Your task to perform on an android device: check out phone information Image 0: 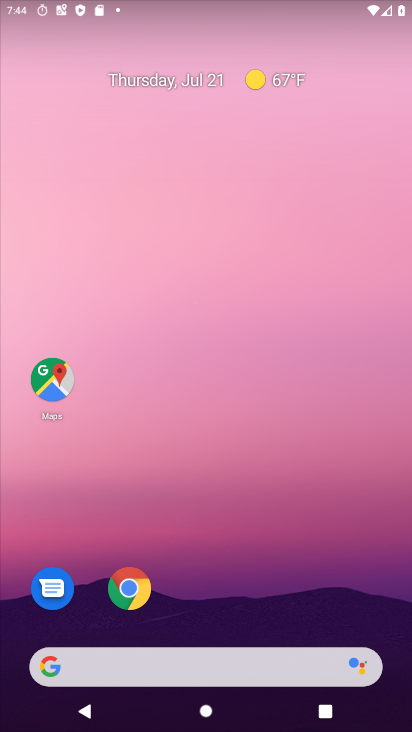
Step 0: drag from (257, 629) to (265, 101)
Your task to perform on an android device: check out phone information Image 1: 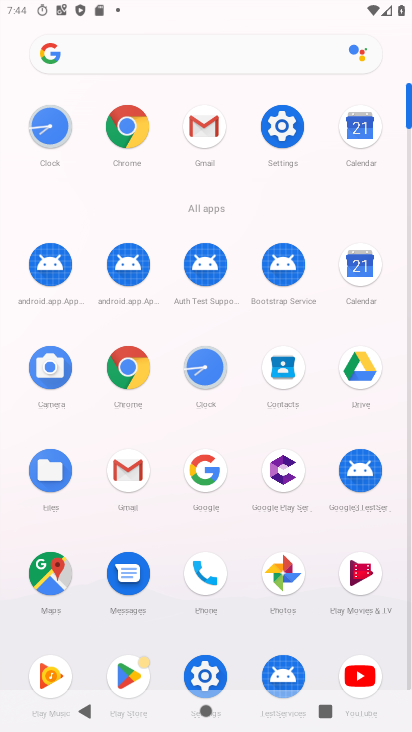
Step 1: click (191, 591)
Your task to perform on an android device: check out phone information Image 2: 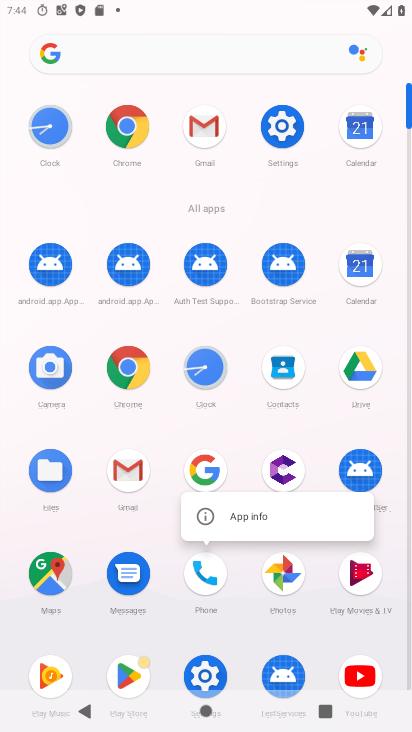
Step 2: click (223, 513)
Your task to perform on an android device: check out phone information Image 3: 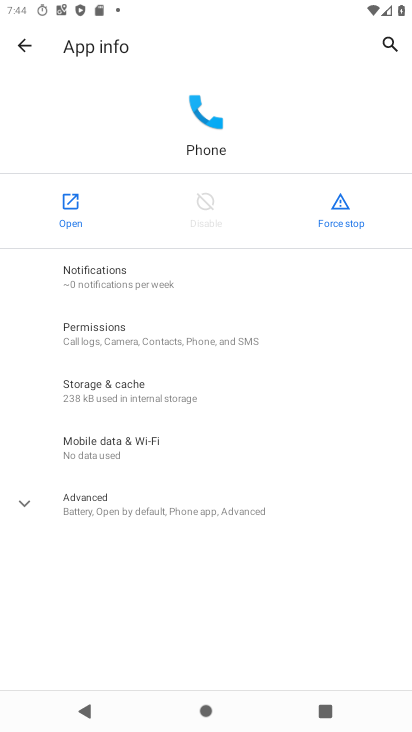
Step 3: click (147, 510)
Your task to perform on an android device: check out phone information Image 4: 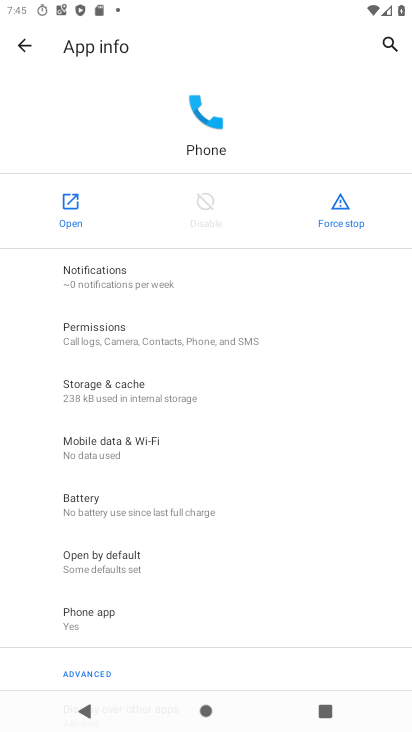
Step 4: task complete